Your task to perform on an android device: Open Reddit.com Image 0: 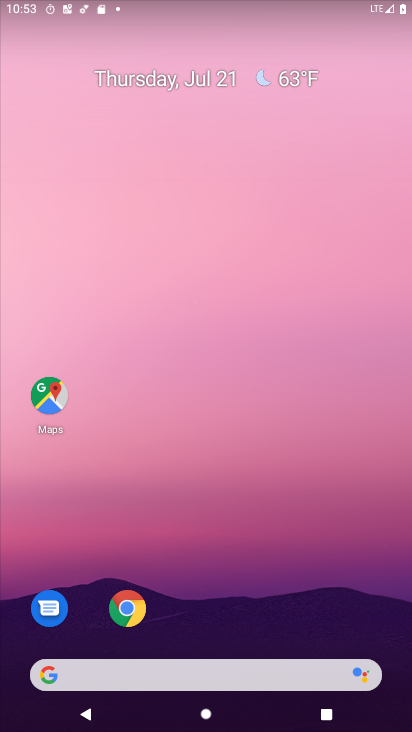
Step 0: drag from (251, 74) to (311, 192)
Your task to perform on an android device: Open Reddit.com Image 1: 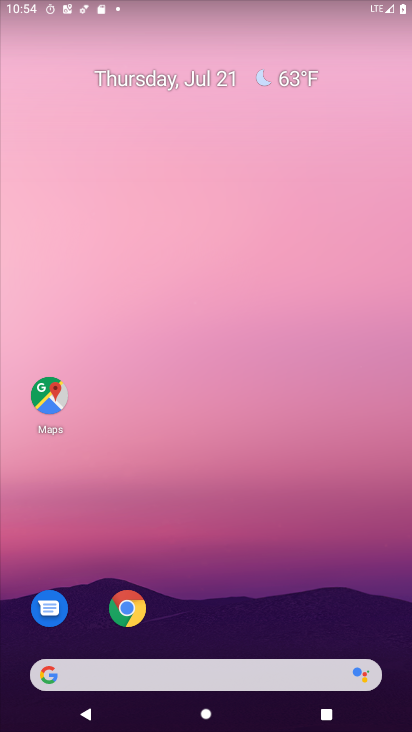
Step 1: drag from (204, 583) to (226, 114)
Your task to perform on an android device: Open Reddit.com Image 2: 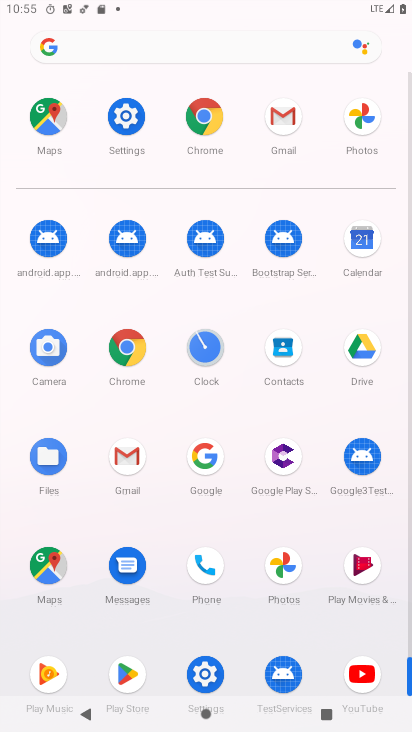
Step 2: click (196, 132)
Your task to perform on an android device: Open Reddit.com Image 3: 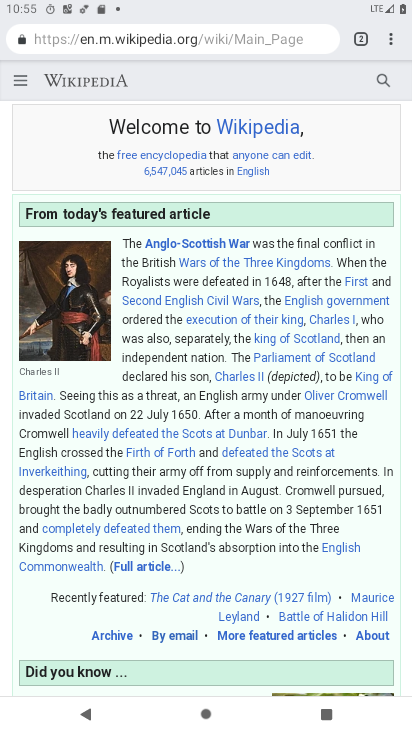
Step 3: click (240, 42)
Your task to perform on an android device: Open Reddit.com Image 4: 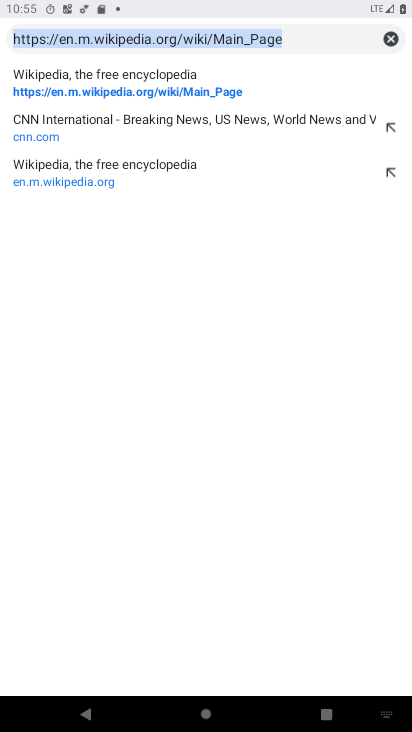
Step 4: type "reddit"
Your task to perform on an android device: Open Reddit.com Image 5: 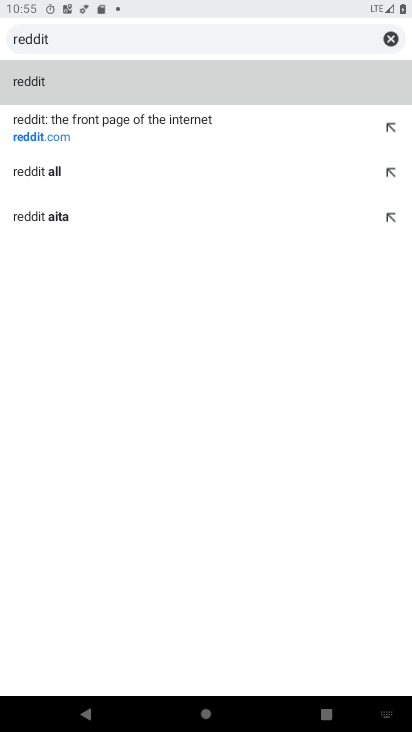
Step 5: click (151, 134)
Your task to perform on an android device: Open Reddit.com Image 6: 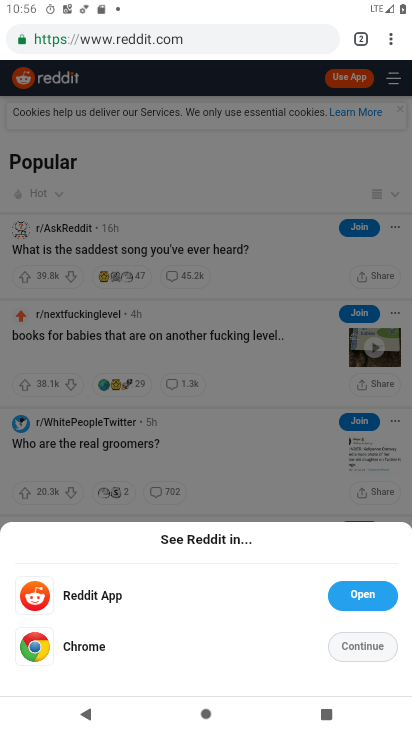
Step 6: task complete